Your task to perform on an android device: Search for seafood restaurants on Google Maps Image 0: 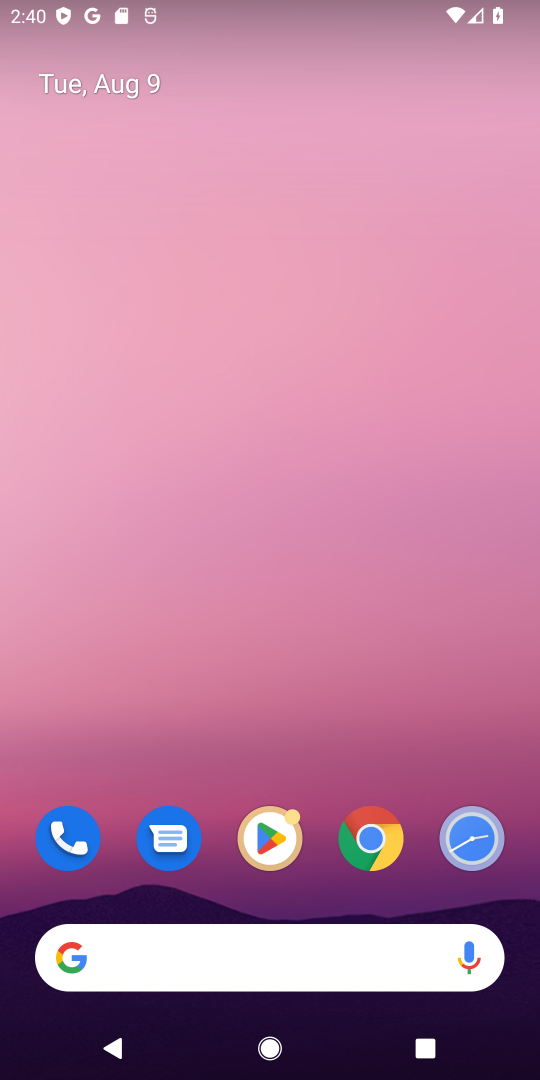
Step 0: drag from (291, 770) to (471, 176)
Your task to perform on an android device: Search for seafood restaurants on Google Maps Image 1: 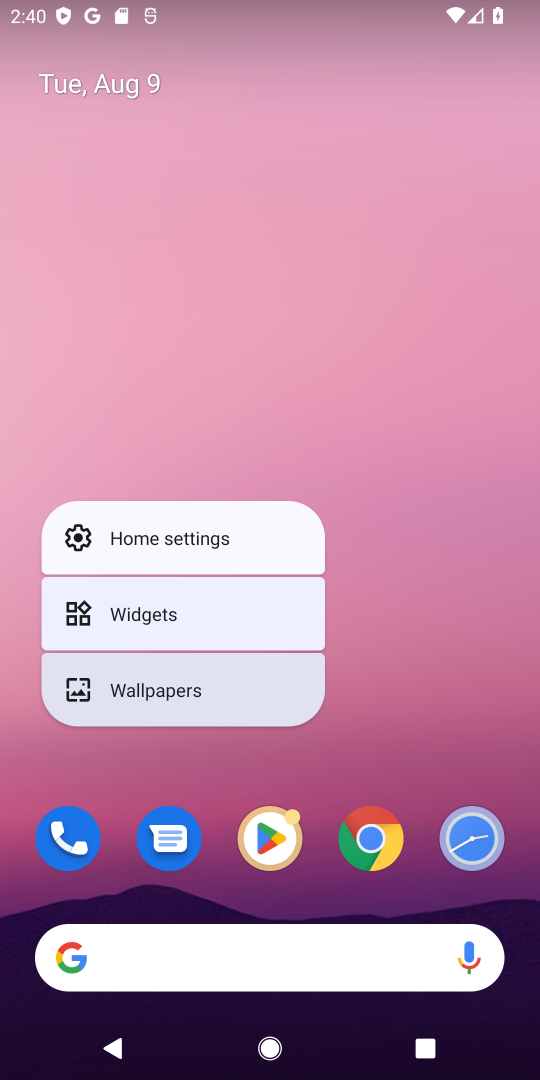
Step 1: click (360, 667)
Your task to perform on an android device: Search for seafood restaurants on Google Maps Image 2: 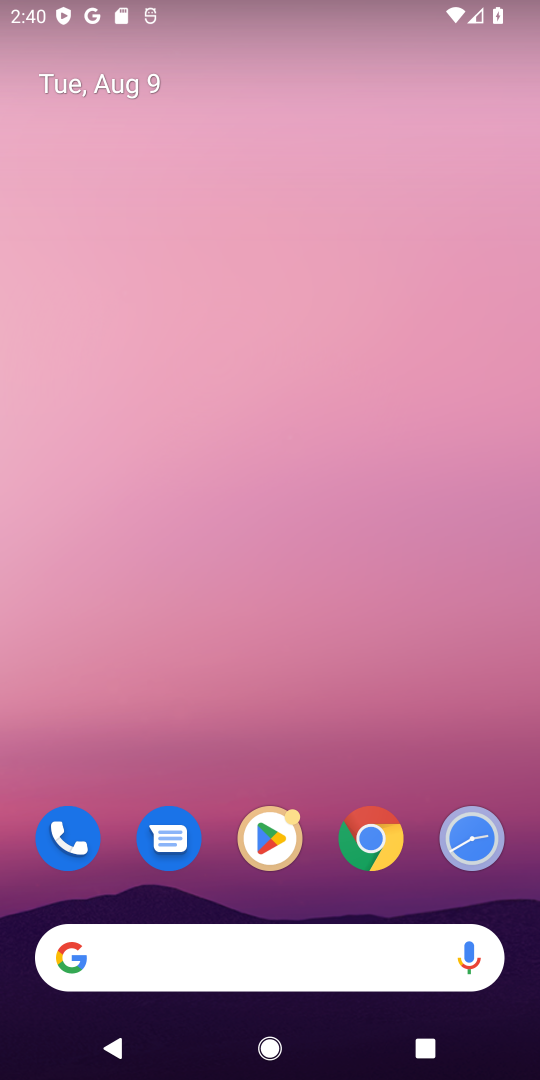
Step 2: drag from (345, 796) to (495, 192)
Your task to perform on an android device: Search for seafood restaurants on Google Maps Image 3: 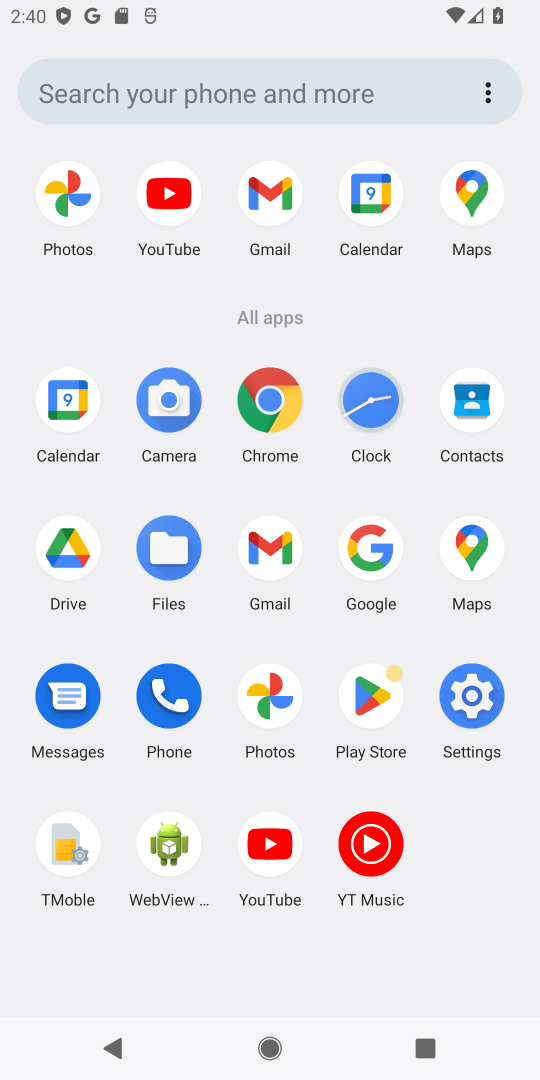
Step 3: click (470, 554)
Your task to perform on an android device: Search for seafood restaurants on Google Maps Image 4: 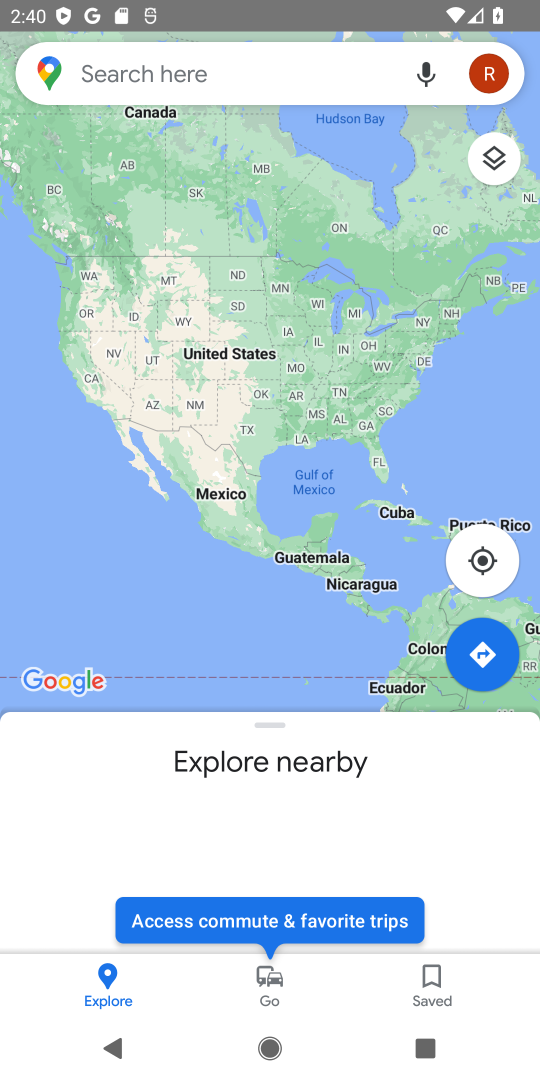
Step 4: click (141, 76)
Your task to perform on an android device: Search for seafood restaurants on Google Maps Image 5: 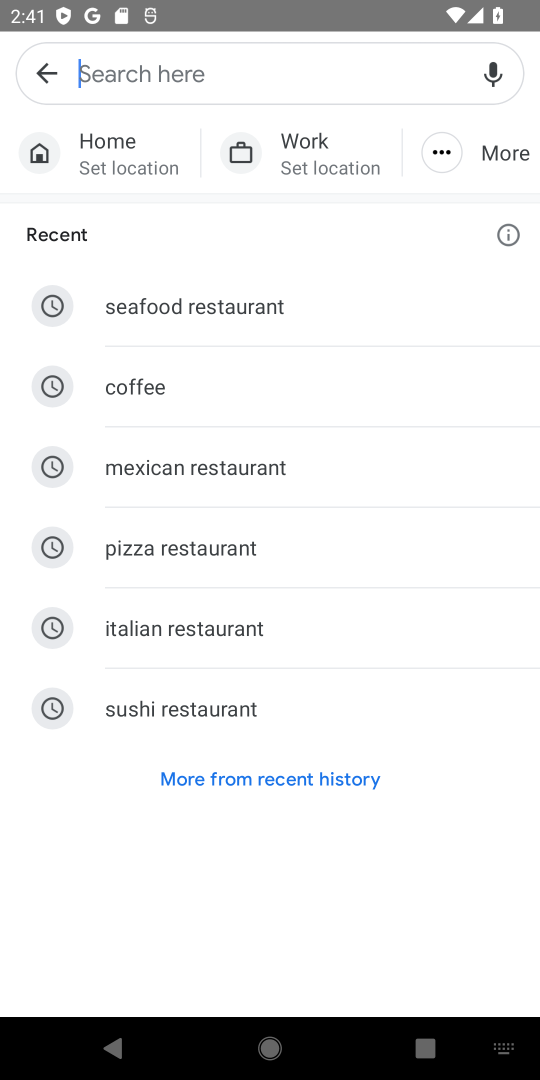
Step 5: type "seafood restaurants"
Your task to perform on an android device: Search for seafood restaurants on Google Maps Image 6: 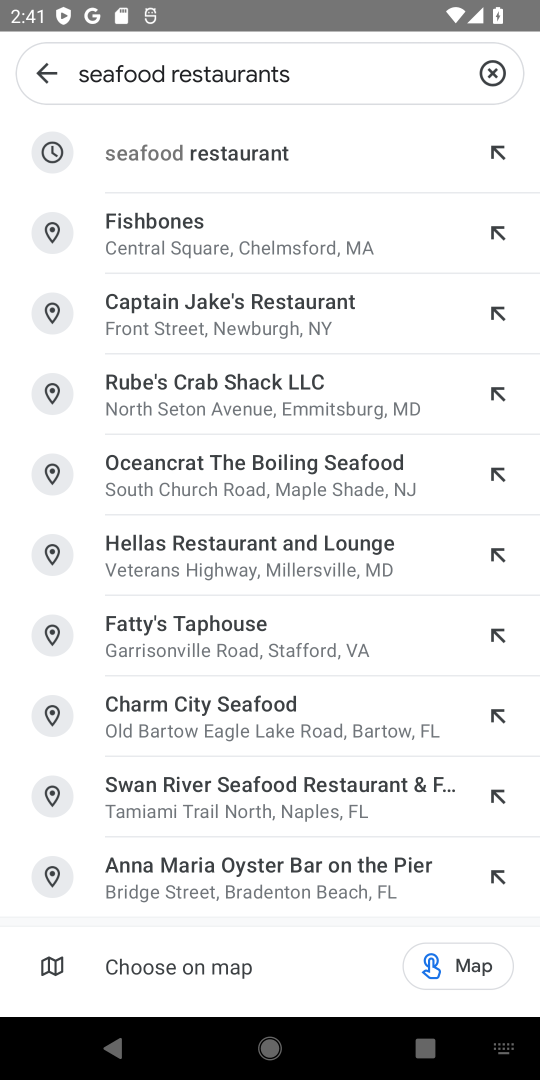
Step 6: press enter
Your task to perform on an android device: Search for seafood restaurants on Google Maps Image 7: 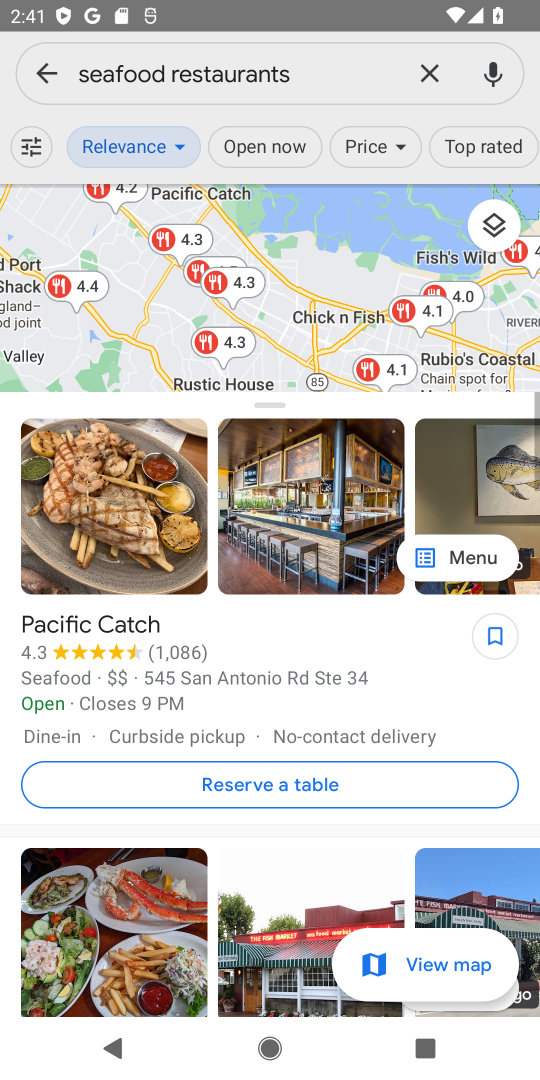
Step 7: task complete